Your task to perform on an android device: open app "Adobe Acrobat Reader: Edit PDF" (install if not already installed), go to login, and select forgot password Image 0: 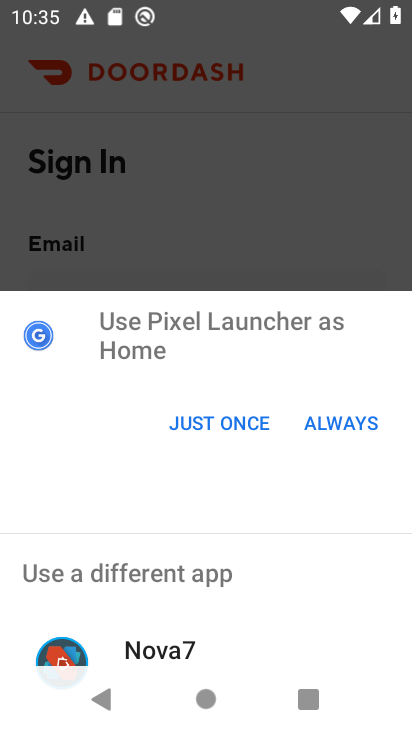
Step 0: press home button
Your task to perform on an android device: open app "Adobe Acrobat Reader: Edit PDF" (install if not already installed), go to login, and select forgot password Image 1: 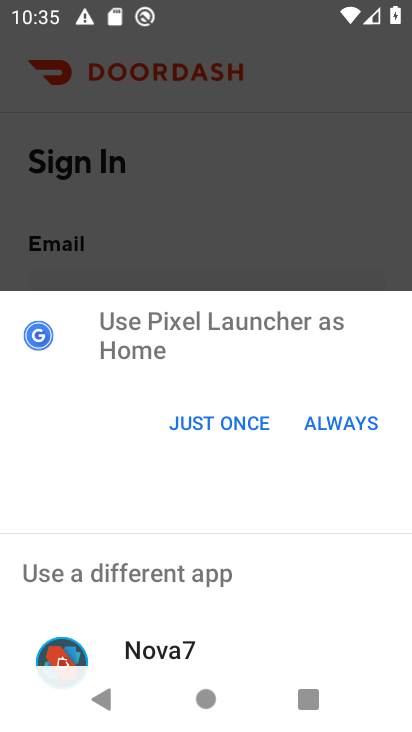
Step 1: click (211, 426)
Your task to perform on an android device: open app "Adobe Acrobat Reader: Edit PDF" (install if not already installed), go to login, and select forgot password Image 2: 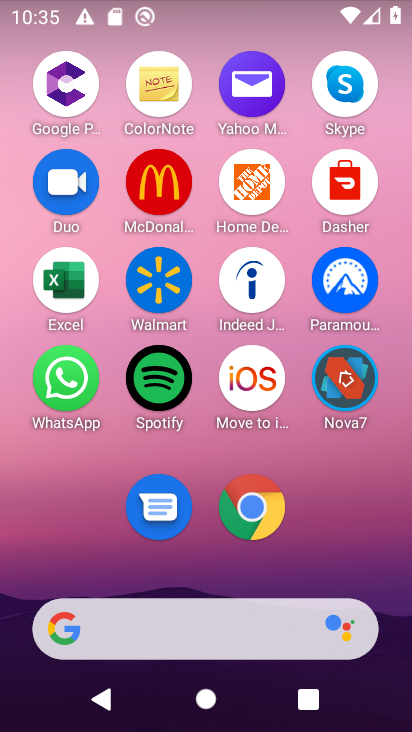
Step 2: drag from (342, 549) to (292, 54)
Your task to perform on an android device: open app "Adobe Acrobat Reader: Edit PDF" (install if not already installed), go to login, and select forgot password Image 3: 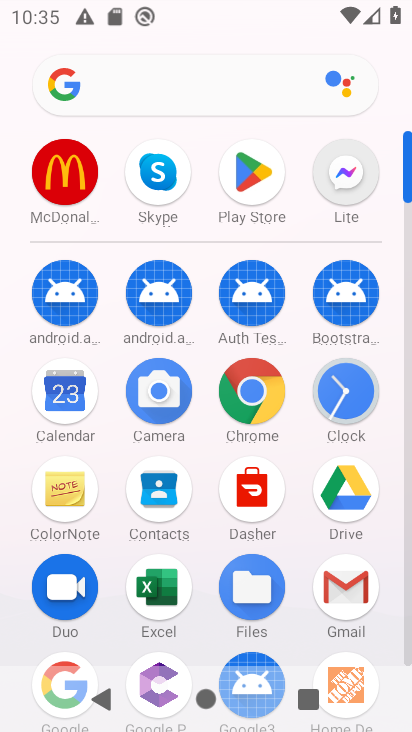
Step 3: click (410, 645)
Your task to perform on an android device: open app "Adobe Acrobat Reader: Edit PDF" (install if not already installed), go to login, and select forgot password Image 4: 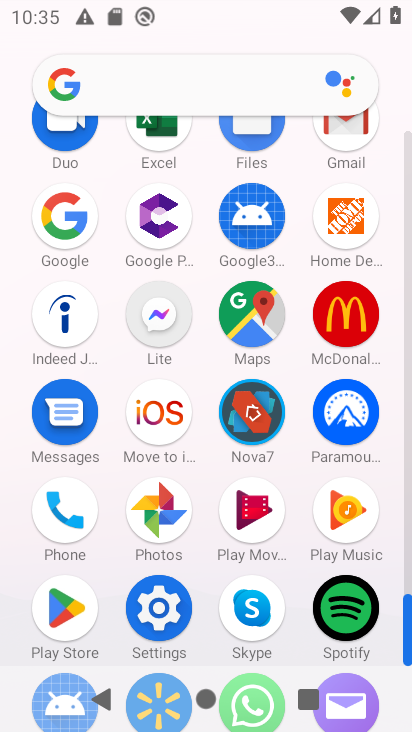
Step 4: click (67, 613)
Your task to perform on an android device: open app "Adobe Acrobat Reader: Edit PDF" (install if not already installed), go to login, and select forgot password Image 5: 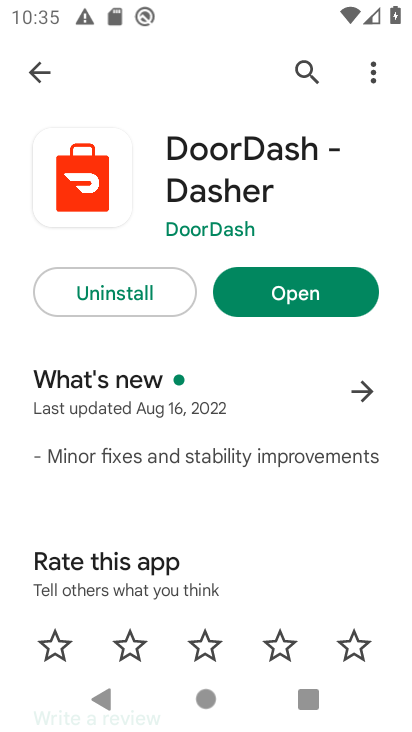
Step 5: click (306, 67)
Your task to perform on an android device: open app "Adobe Acrobat Reader: Edit PDF" (install if not already installed), go to login, and select forgot password Image 6: 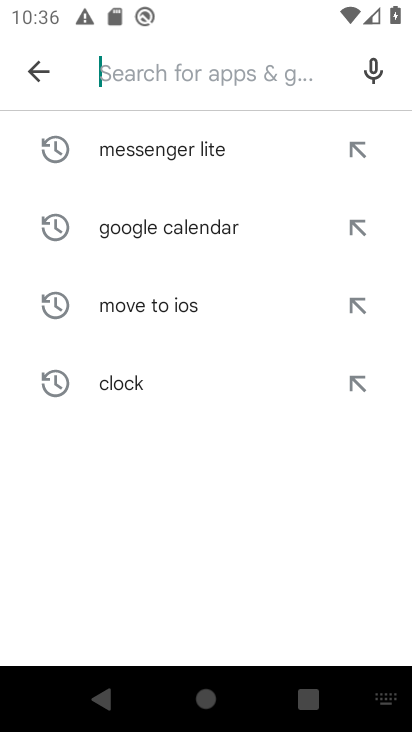
Step 6: type "Adobe Acrobat Reader: Edit PDF"
Your task to perform on an android device: open app "Adobe Acrobat Reader: Edit PDF" (install if not already installed), go to login, and select forgot password Image 7: 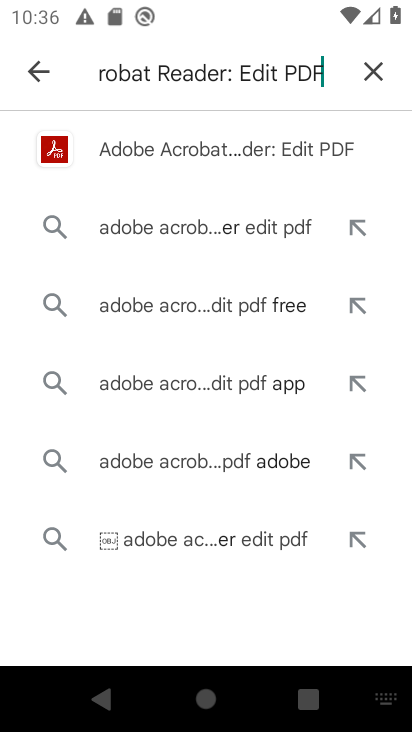
Step 7: click (138, 142)
Your task to perform on an android device: open app "Adobe Acrobat Reader: Edit PDF" (install if not already installed), go to login, and select forgot password Image 8: 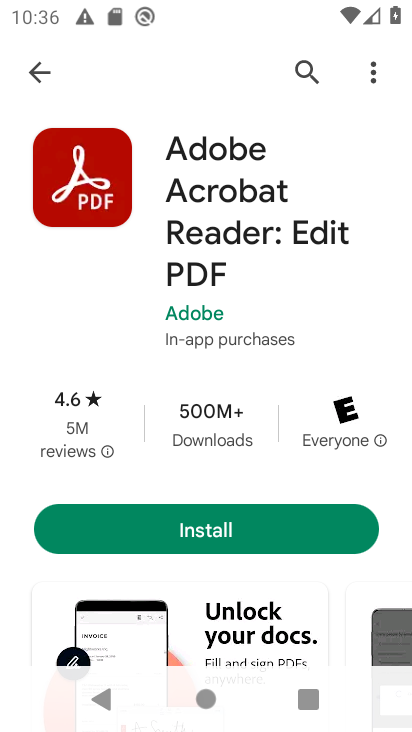
Step 8: click (202, 539)
Your task to perform on an android device: open app "Adobe Acrobat Reader: Edit PDF" (install if not already installed), go to login, and select forgot password Image 9: 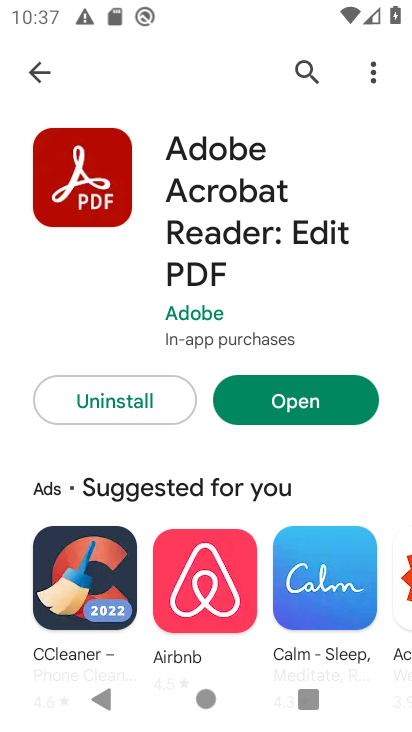
Step 9: click (290, 403)
Your task to perform on an android device: open app "Adobe Acrobat Reader: Edit PDF" (install if not already installed), go to login, and select forgot password Image 10: 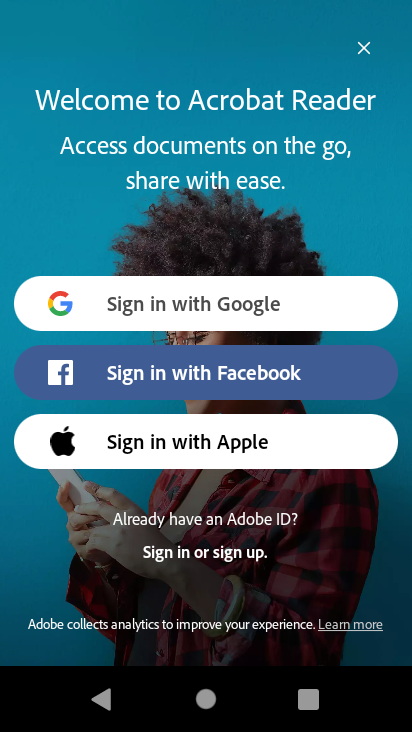
Step 10: click (218, 555)
Your task to perform on an android device: open app "Adobe Acrobat Reader: Edit PDF" (install if not already installed), go to login, and select forgot password Image 11: 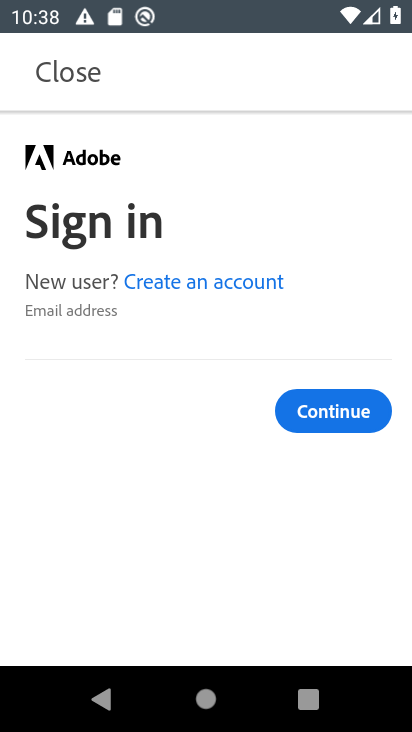
Step 11: click (65, 337)
Your task to perform on an android device: open app "Adobe Acrobat Reader: Edit PDF" (install if not already installed), go to login, and select forgot password Image 12: 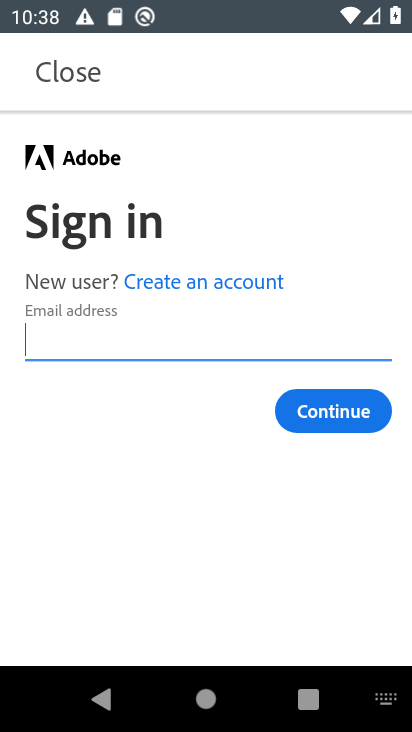
Step 12: task complete